Your task to perform on an android device: open a bookmark in the chrome app Image 0: 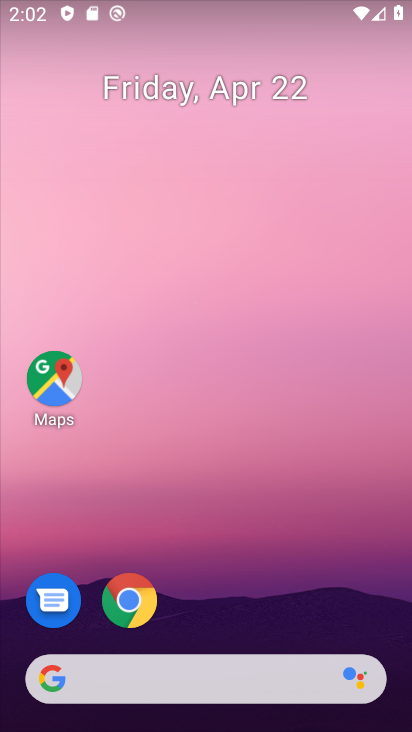
Step 0: click (139, 598)
Your task to perform on an android device: open a bookmark in the chrome app Image 1: 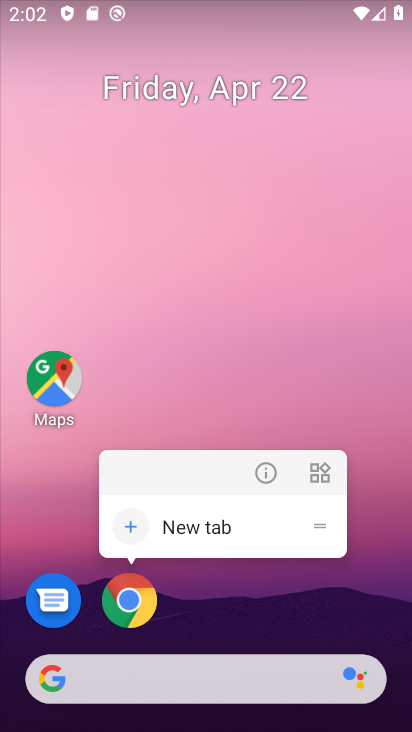
Step 1: click (133, 600)
Your task to perform on an android device: open a bookmark in the chrome app Image 2: 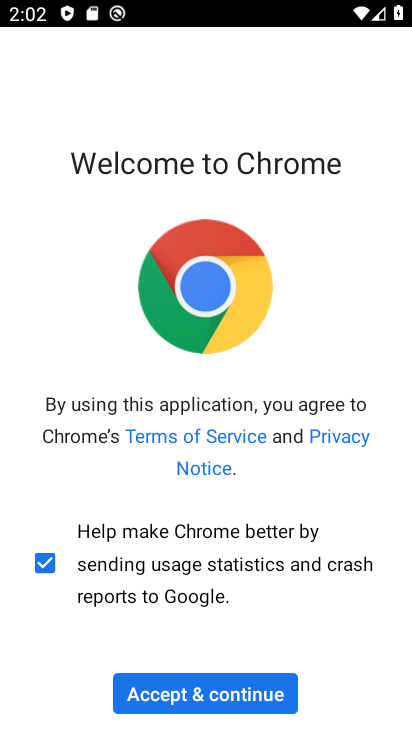
Step 2: click (216, 687)
Your task to perform on an android device: open a bookmark in the chrome app Image 3: 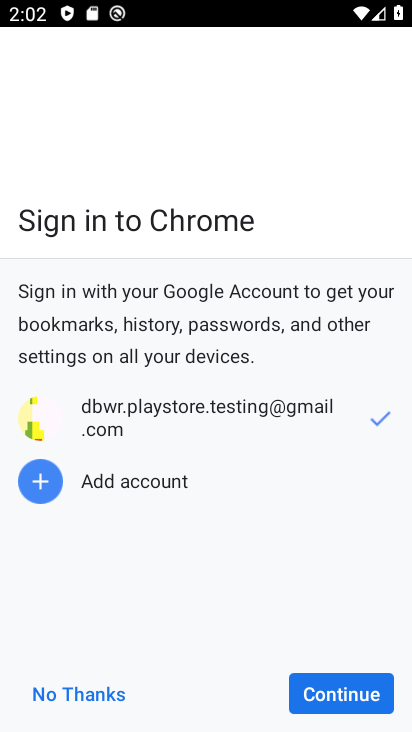
Step 3: click (348, 688)
Your task to perform on an android device: open a bookmark in the chrome app Image 4: 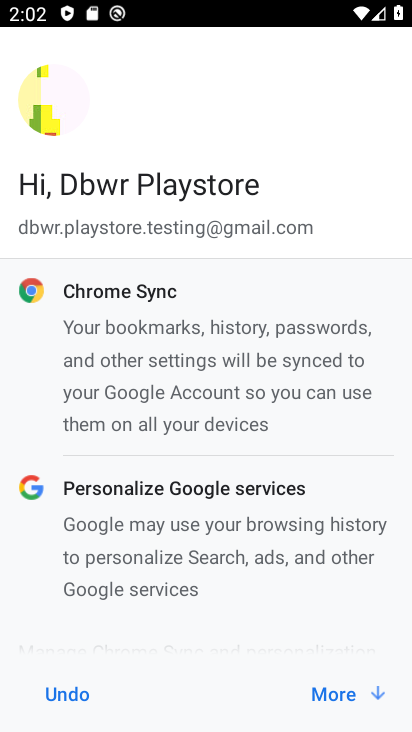
Step 4: click (346, 690)
Your task to perform on an android device: open a bookmark in the chrome app Image 5: 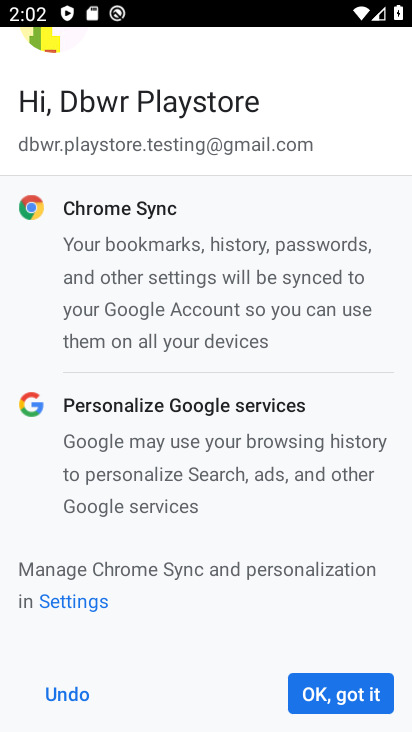
Step 5: click (346, 697)
Your task to perform on an android device: open a bookmark in the chrome app Image 6: 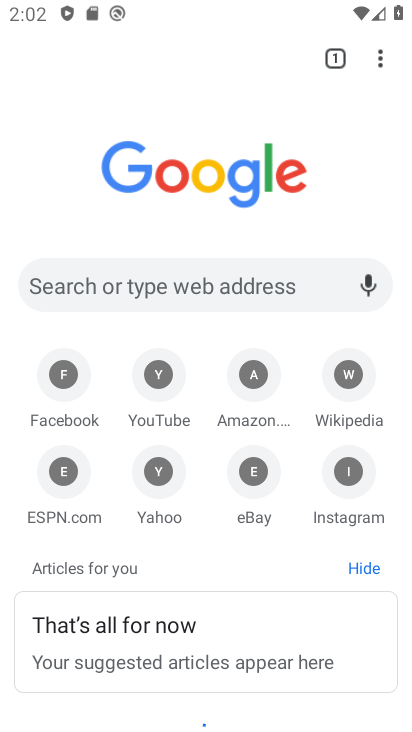
Step 6: task complete